Your task to perform on an android device: toggle location history Image 0: 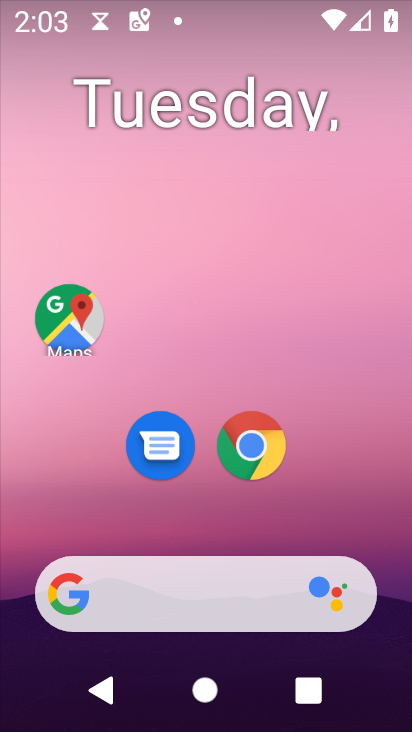
Step 0: drag from (224, 573) to (296, 20)
Your task to perform on an android device: toggle location history Image 1: 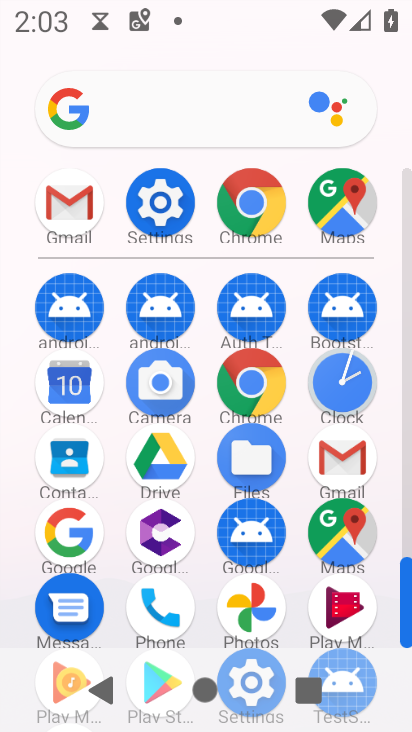
Step 1: click (145, 180)
Your task to perform on an android device: toggle location history Image 2: 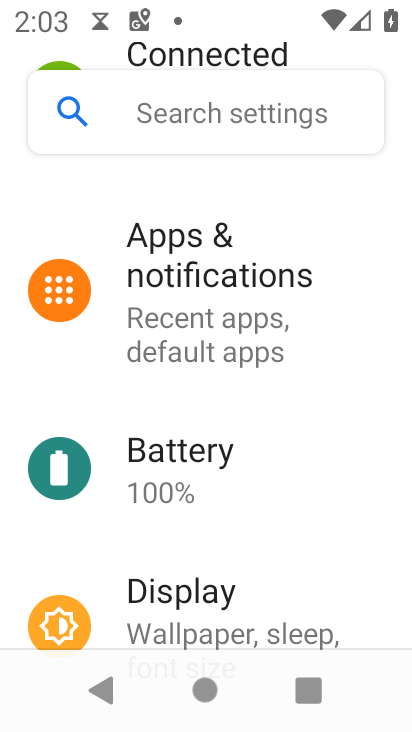
Step 2: drag from (268, 276) to (307, 148)
Your task to perform on an android device: toggle location history Image 3: 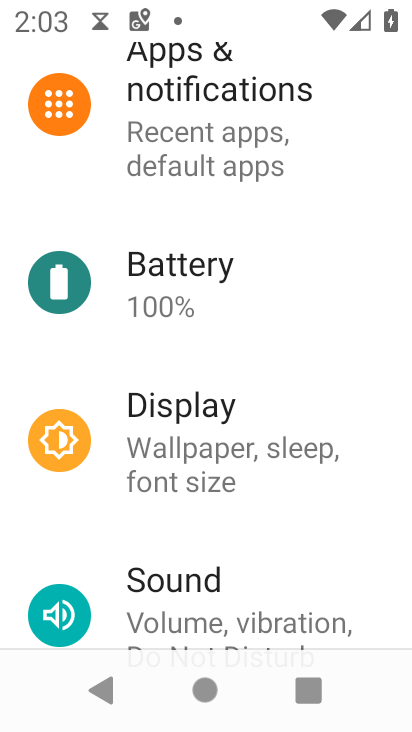
Step 3: drag from (309, 630) to (330, 25)
Your task to perform on an android device: toggle location history Image 4: 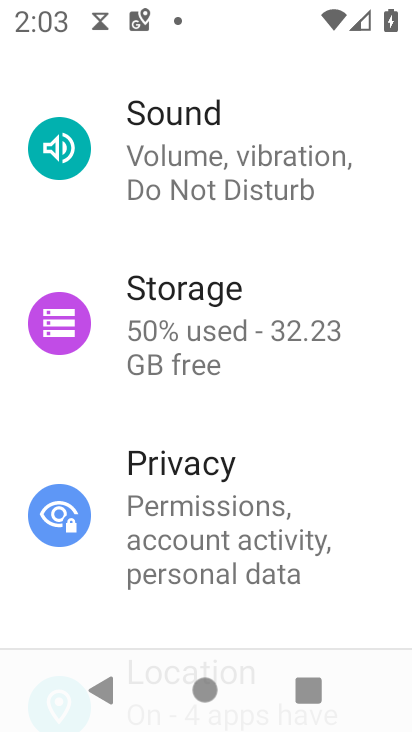
Step 4: drag from (233, 628) to (266, 407)
Your task to perform on an android device: toggle location history Image 5: 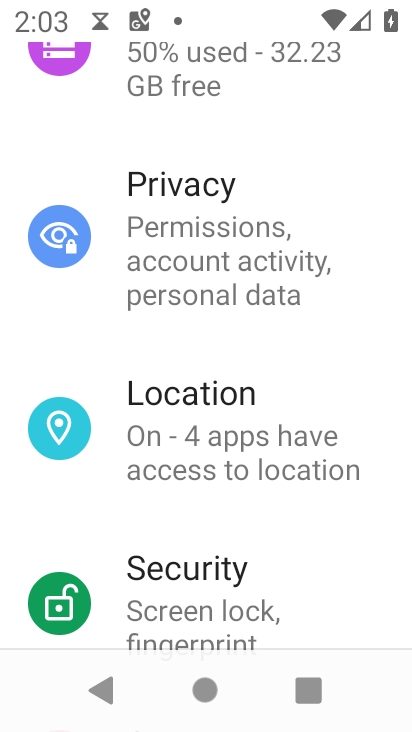
Step 5: click (261, 415)
Your task to perform on an android device: toggle location history Image 6: 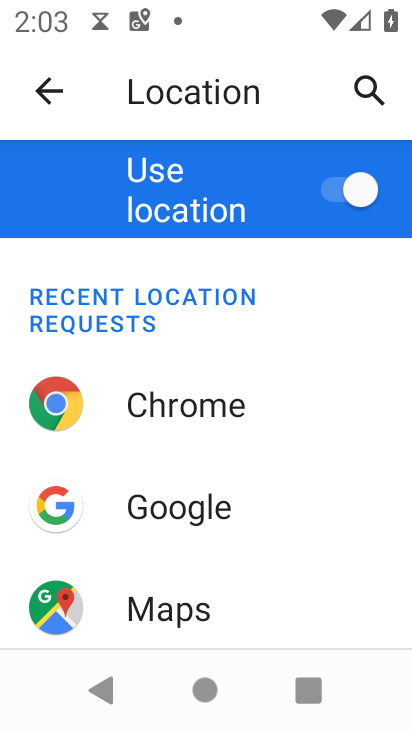
Step 6: drag from (219, 631) to (306, 122)
Your task to perform on an android device: toggle location history Image 7: 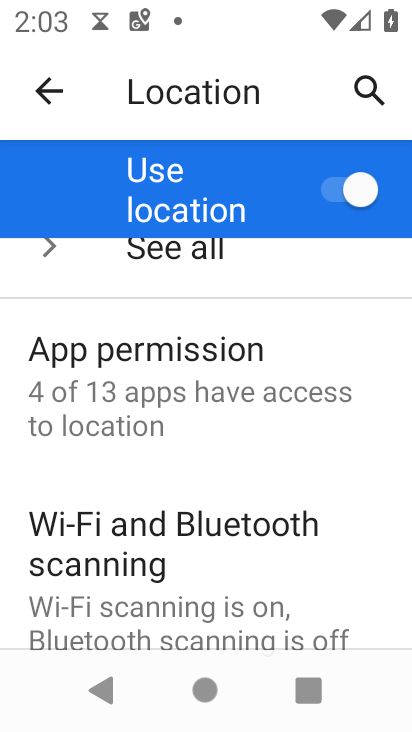
Step 7: drag from (263, 624) to (289, 374)
Your task to perform on an android device: toggle location history Image 8: 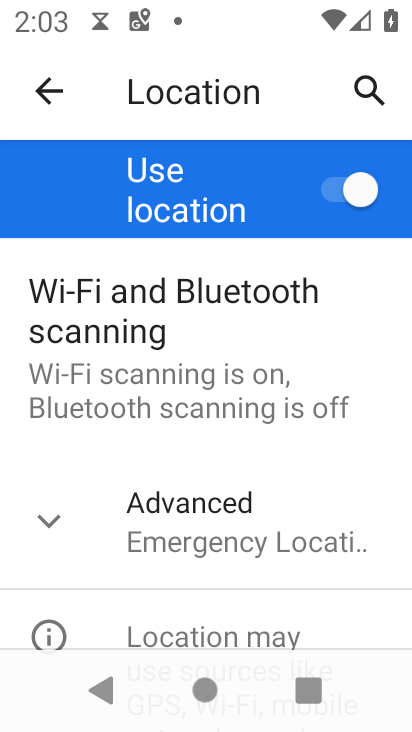
Step 8: click (266, 520)
Your task to perform on an android device: toggle location history Image 9: 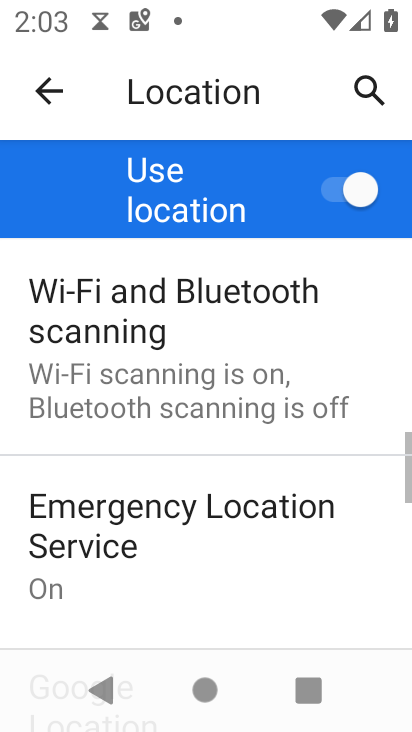
Step 9: drag from (232, 633) to (254, 233)
Your task to perform on an android device: toggle location history Image 10: 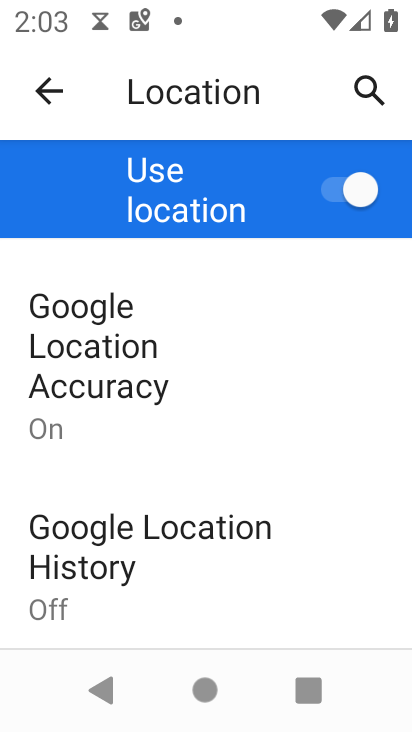
Step 10: click (244, 568)
Your task to perform on an android device: toggle location history Image 11: 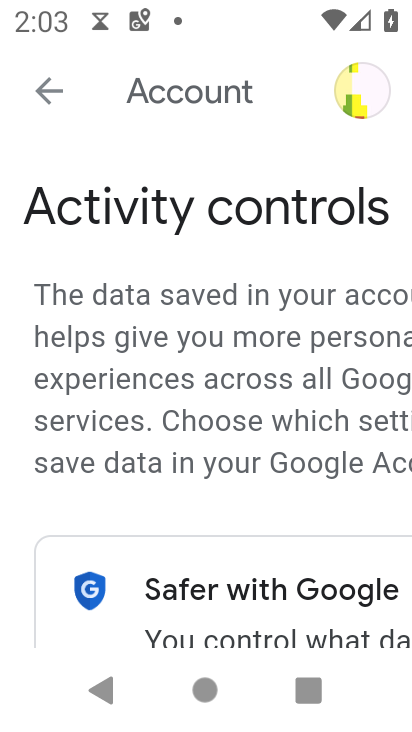
Step 11: drag from (297, 634) to (229, 168)
Your task to perform on an android device: toggle location history Image 12: 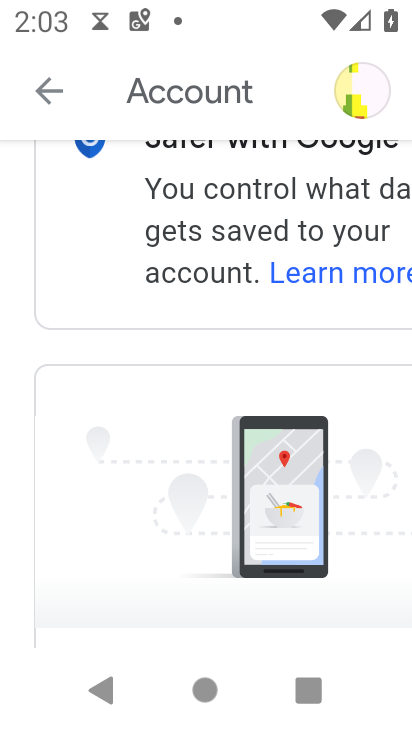
Step 12: drag from (349, 625) to (252, 205)
Your task to perform on an android device: toggle location history Image 13: 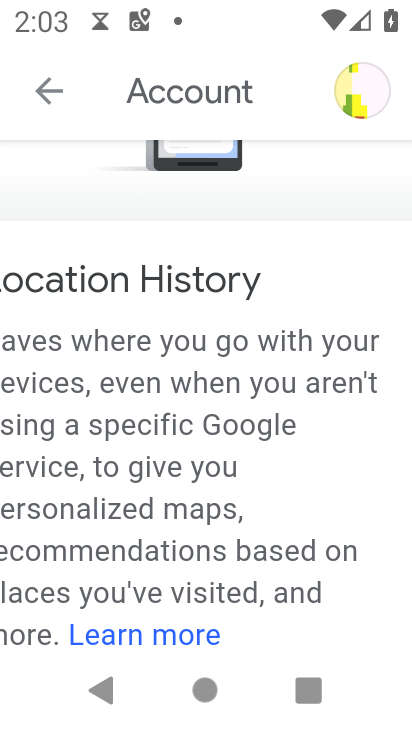
Step 13: drag from (343, 596) to (401, 195)
Your task to perform on an android device: toggle location history Image 14: 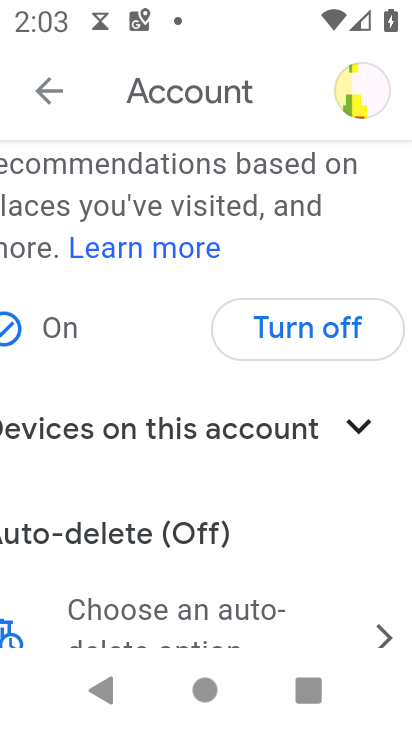
Step 14: click (289, 322)
Your task to perform on an android device: toggle location history Image 15: 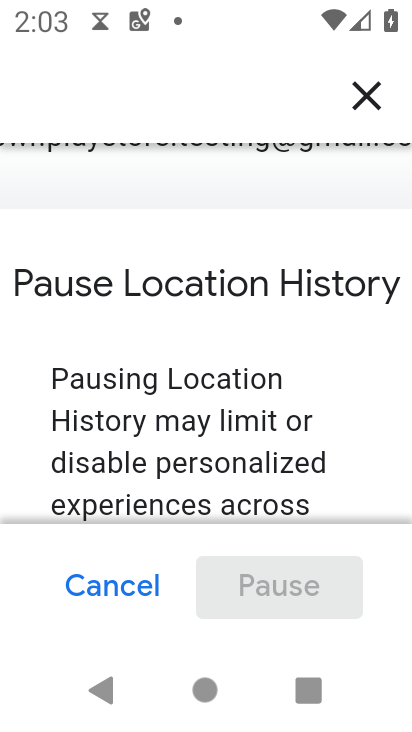
Step 15: drag from (217, 477) to (263, 135)
Your task to perform on an android device: toggle location history Image 16: 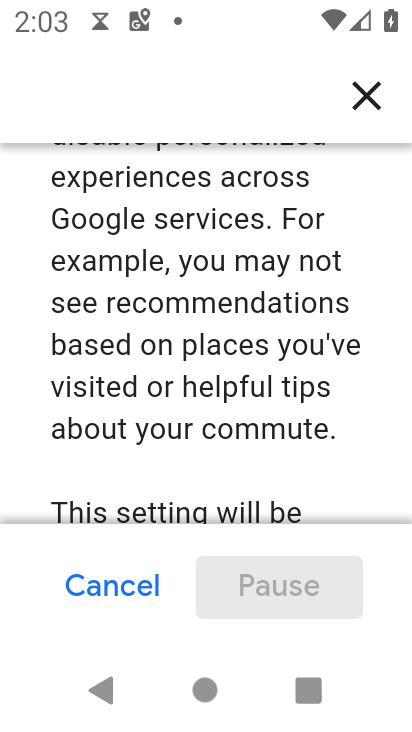
Step 16: drag from (246, 493) to (314, 91)
Your task to perform on an android device: toggle location history Image 17: 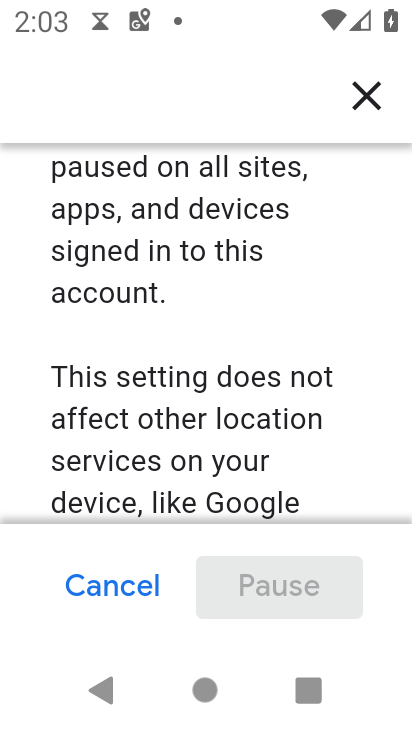
Step 17: drag from (331, 488) to (338, 148)
Your task to perform on an android device: toggle location history Image 18: 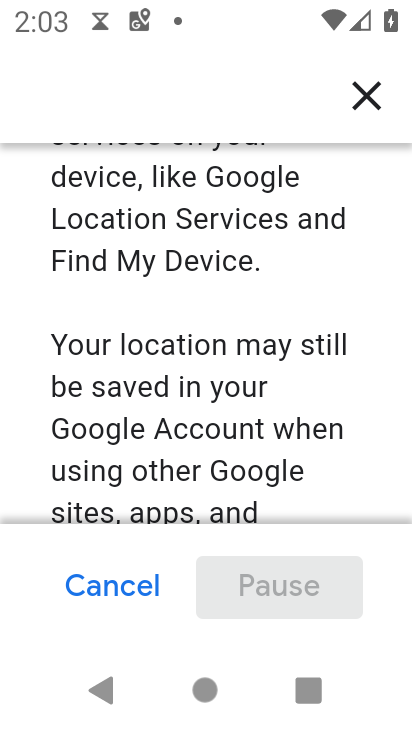
Step 18: drag from (322, 465) to (341, 75)
Your task to perform on an android device: toggle location history Image 19: 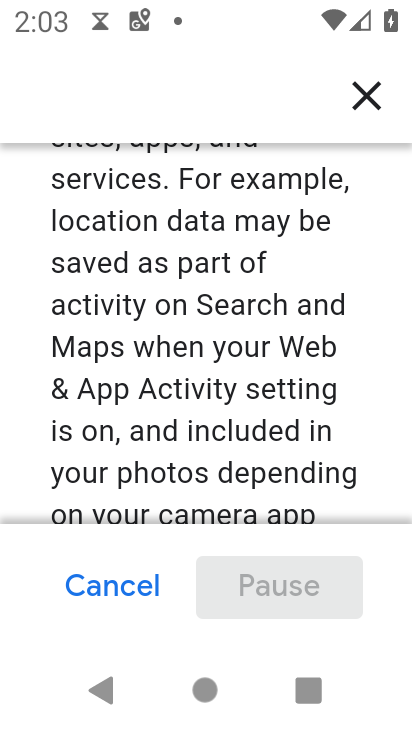
Step 19: drag from (311, 499) to (298, 95)
Your task to perform on an android device: toggle location history Image 20: 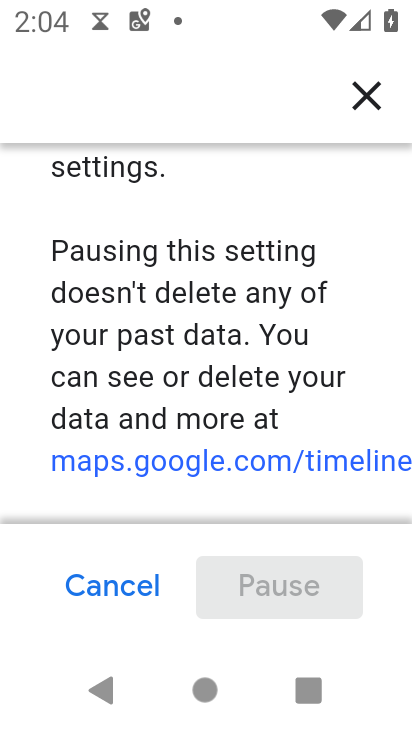
Step 20: drag from (271, 497) to (319, 142)
Your task to perform on an android device: toggle location history Image 21: 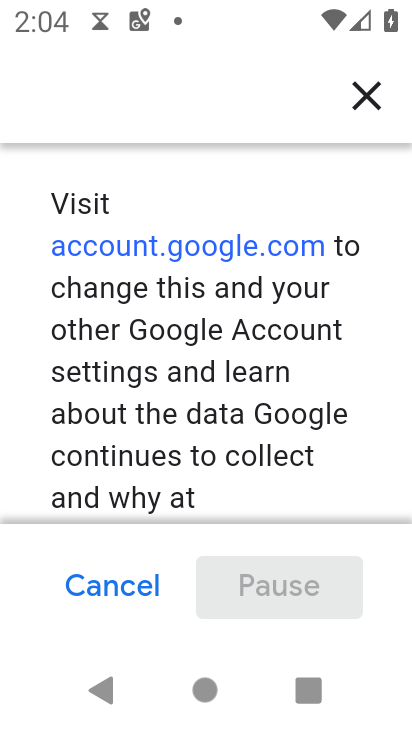
Step 21: drag from (301, 487) to (321, 135)
Your task to perform on an android device: toggle location history Image 22: 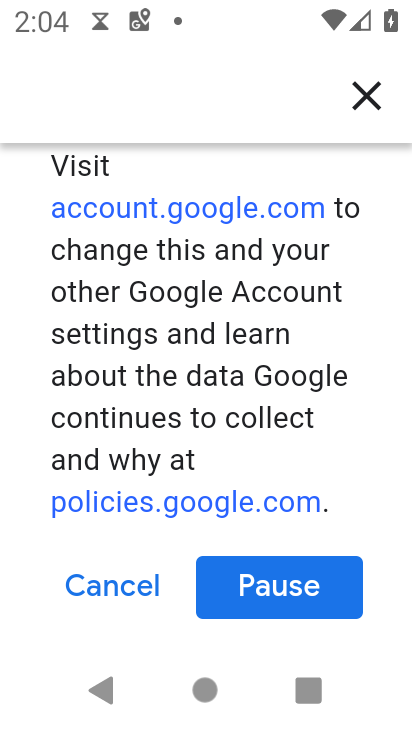
Step 22: click (280, 602)
Your task to perform on an android device: toggle location history Image 23: 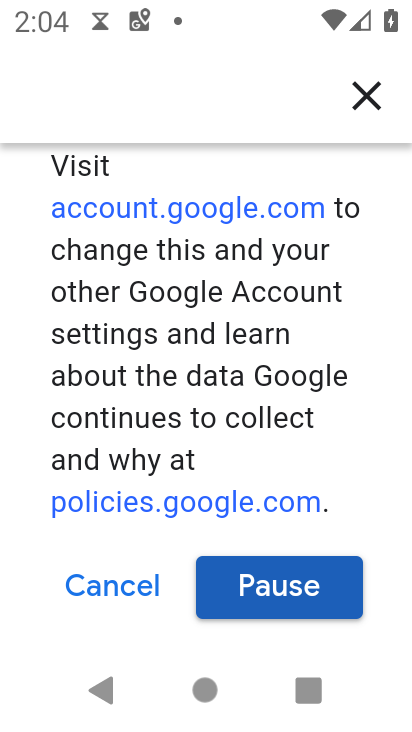
Step 23: click (285, 586)
Your task to perform on an android device: toggle location history Image 24: 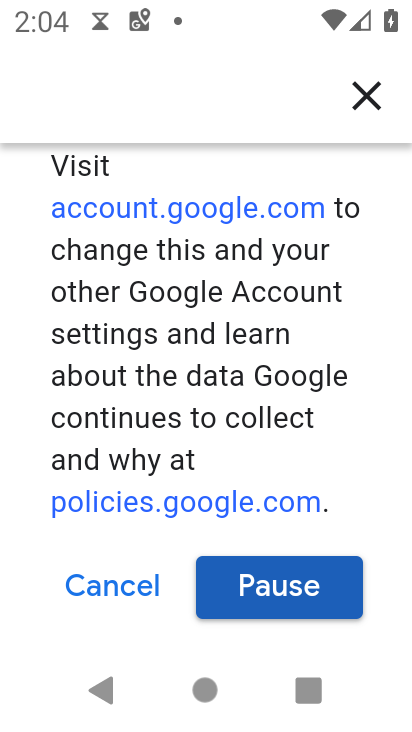
Step 24: click (285, 586)
Your task to perform on an android device: toggle location history Image 25: 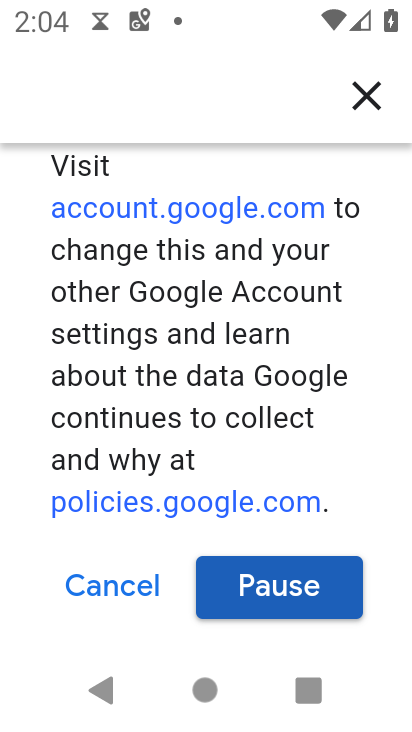
Step 25: click (286, 582)
Your task to perform on an android device: toggle location history Image 26: 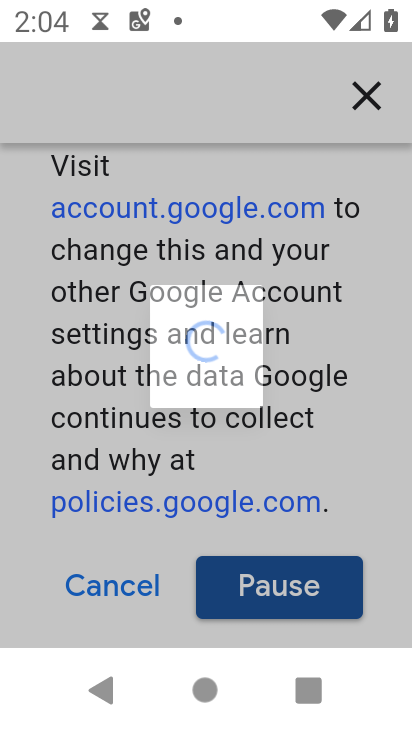
Step 26: click (286, 582)
Your task to perform on an android device: toggle location history Image 27: 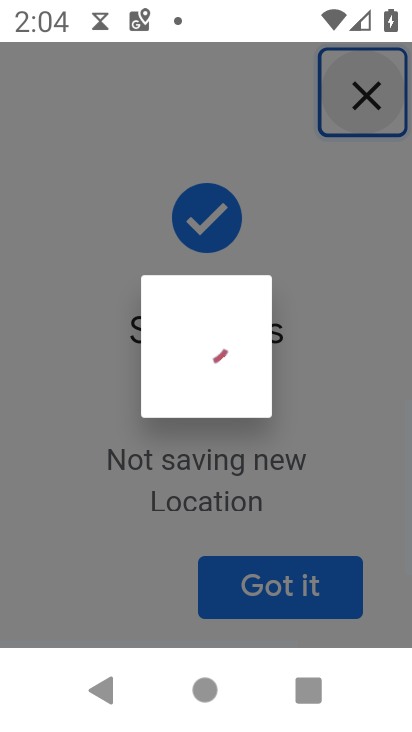
Step 27: click (286, 582)
Your task to perform on an android device: toggle location history Image 28: 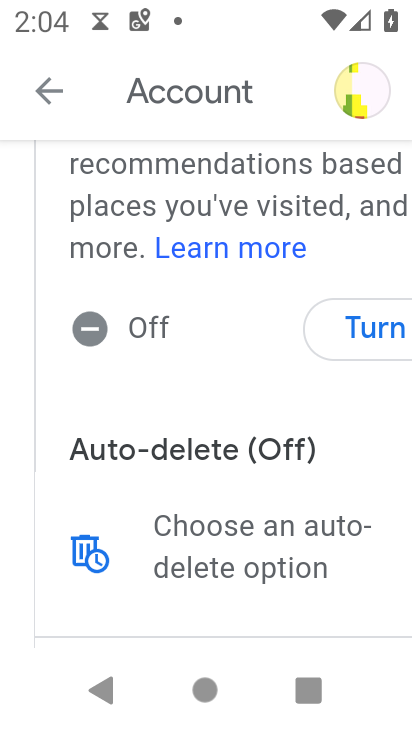
Step 28: task complete